Your task to perform on an android device: turn pop-ups on in chrome Image 0: 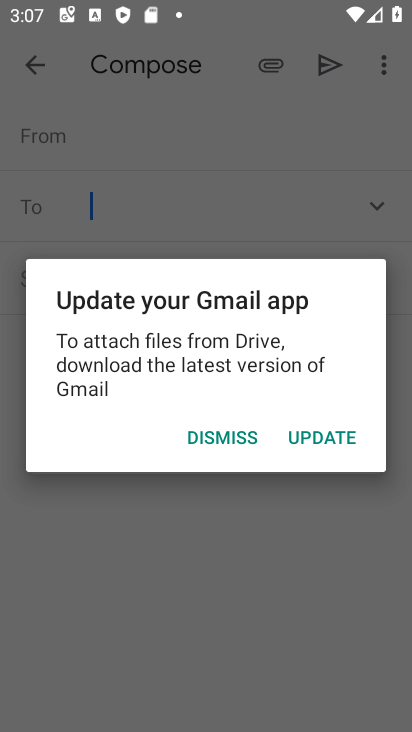
Step 0: click (318, 430)
Your task to perform on an android device: turn pop-ups on in chrome Image 1: 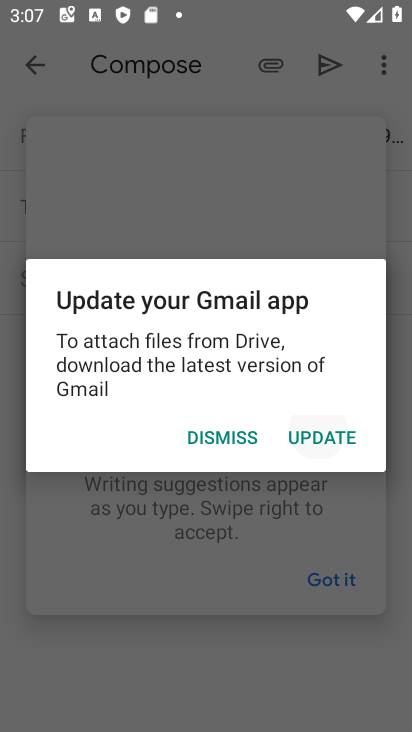
Step 1: click (219, 430)
Your task to perform on an android device: turn pop-ups on in chrome Image 2: 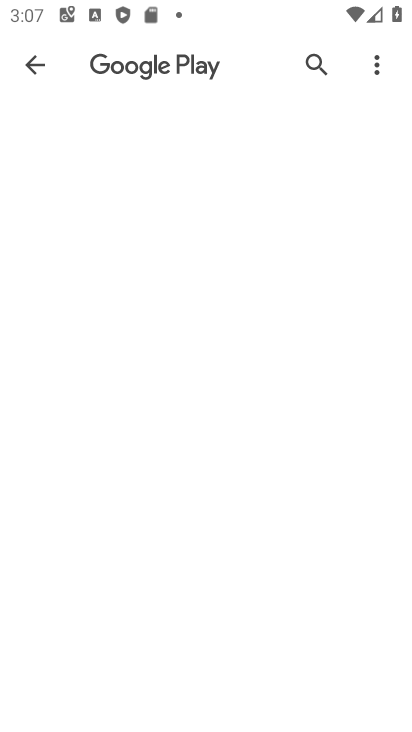
Step 2: press back button
Your task to perform on an android device: turn pop-ups on in chrome Image 3: 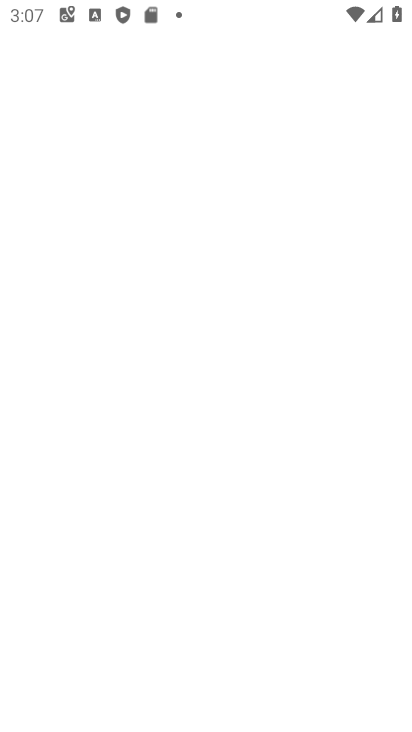
Step 3: press back button
Your task to perform on an android device: turn pop-ups on in chrome Image 4: 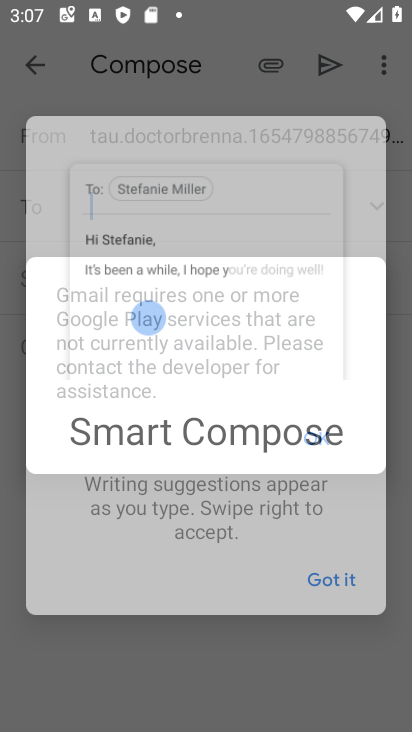
Step 4: press back button
Your task to perform on an android device: turn pop-ups on in chrome Image 5: 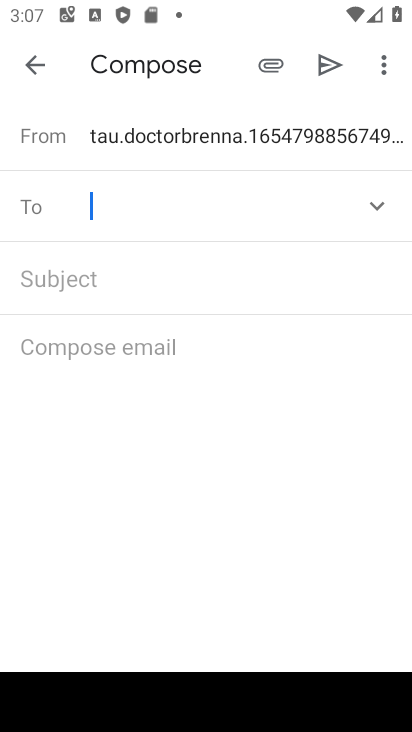
Step 5: press back button
Your task to perform on an android device: turn pop-ups on in chrome Image 6: 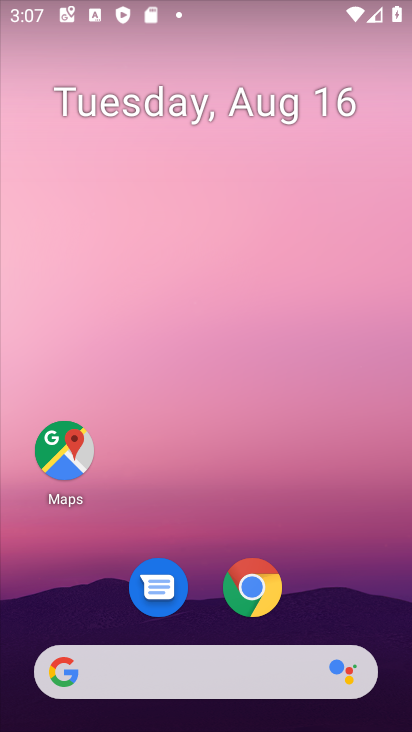
Step 6: click (260, 587)
Your task to perform on an android device: turn pop-ups on in chrome Image 7: 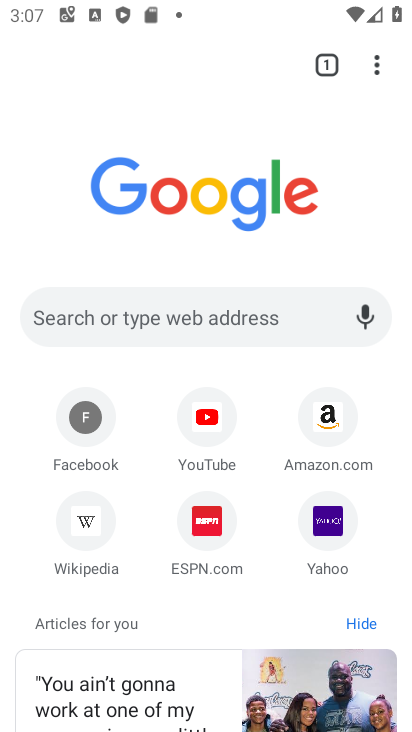
Step 7: drag from (373, 64) to (175, 548)
Your task to perform on an android device: turn pop-ups on in chrome Image 8: 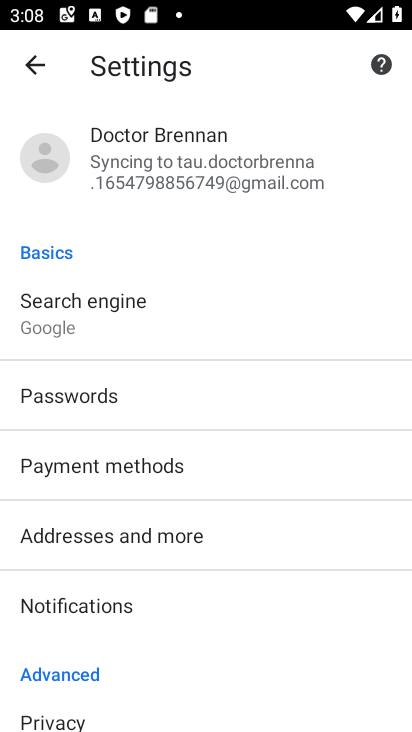
Step 8: drag from (184, 666) to (204, 202)
Your task to perform on an android device: turn pop-ups on in chrome Image 9: 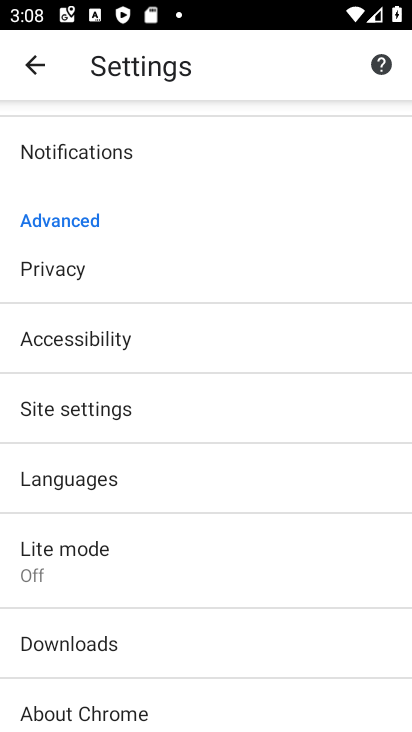
Step 9: click (146, 403)
Your task to perform on an android device: turn pop-ups on in chrome Image 10: 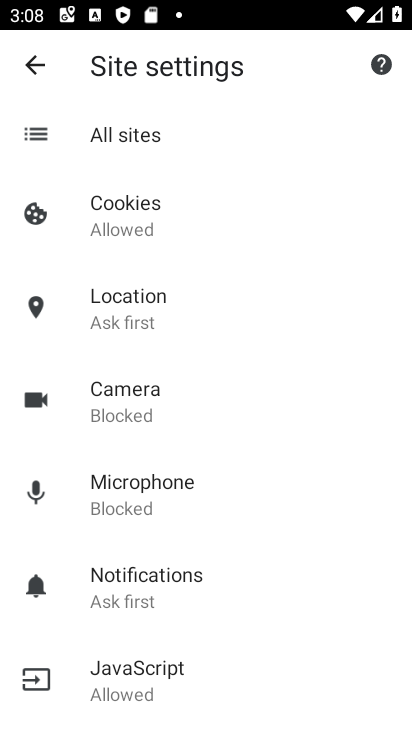
Step 10: drag from (165, 668) to (267, 223)
Your task to perform on an android device: turn pop-ups on in chrome Image 11: 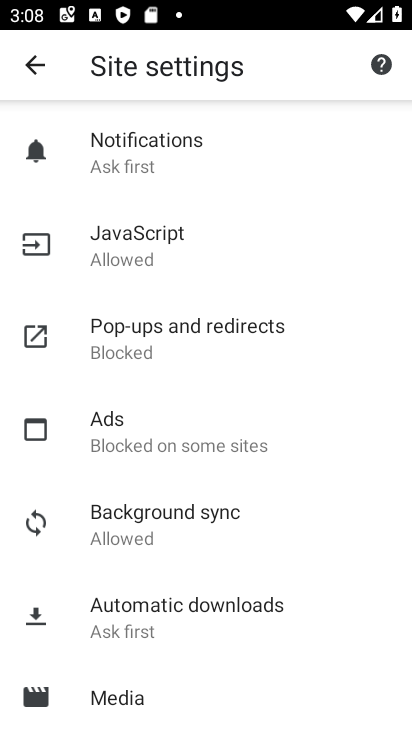
Step 11: click (190, 328)
Your task to perform on an android device: turn pop-ups on in chrome Image 12: 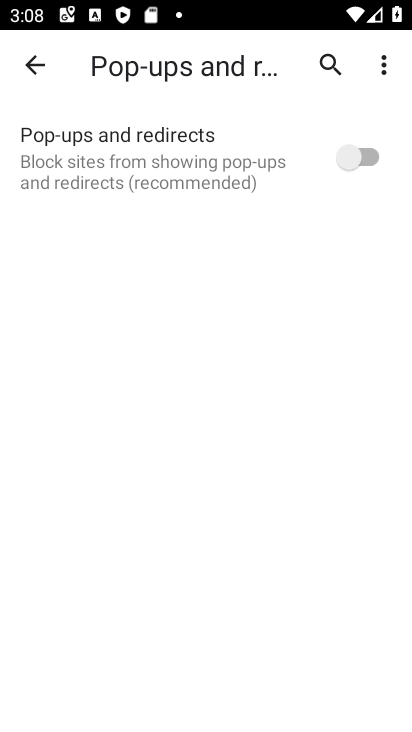
Step 12: click (334, 149)
Your task to perform on an android device: turn pop-ups on in chrome Image 13: 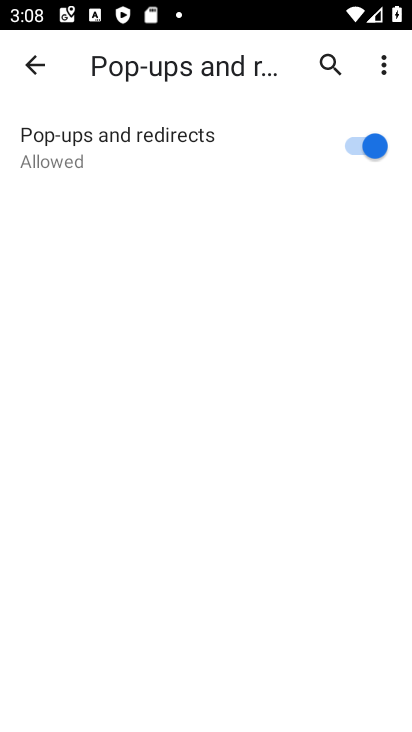
Step 13: task complete